Your task to perform on an android device: Open internet settings Image 0: 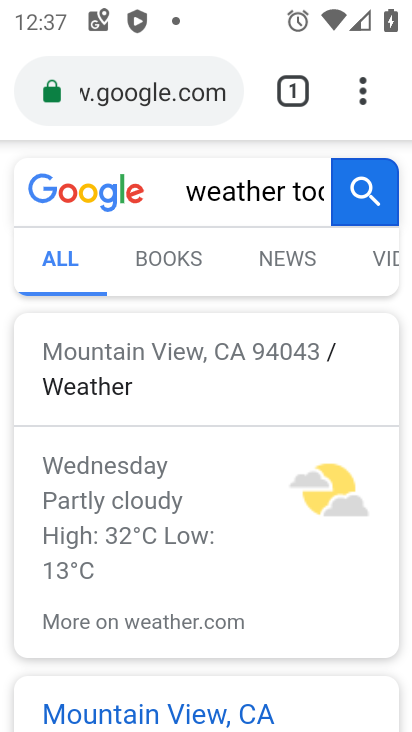
Step 0: press home button
Your task to perform on an android device: Open internet settings Image 1: 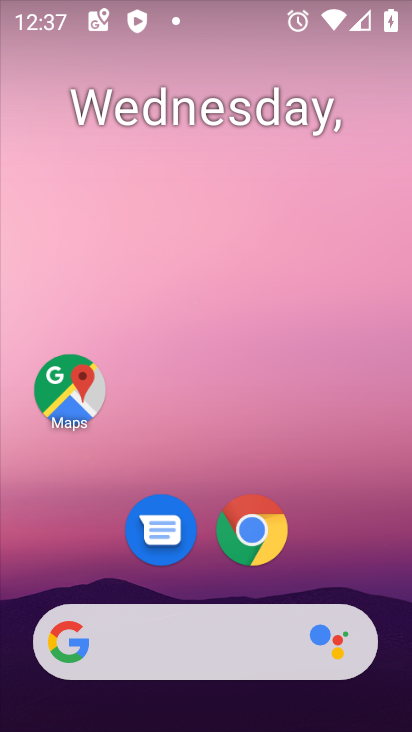
Step 1: drag from (189, 592) to (228, 176)
Your task to perform on an android device: Open internet settings Image 2: 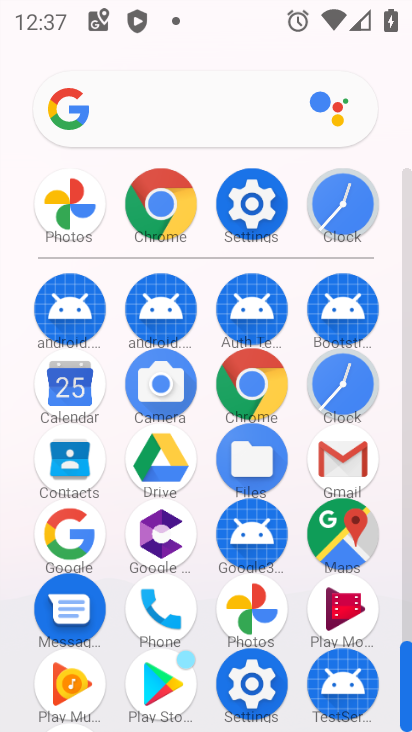
Step 2: click (252, 199)
Your task to perform on an android device: Open internet settings Image 3: 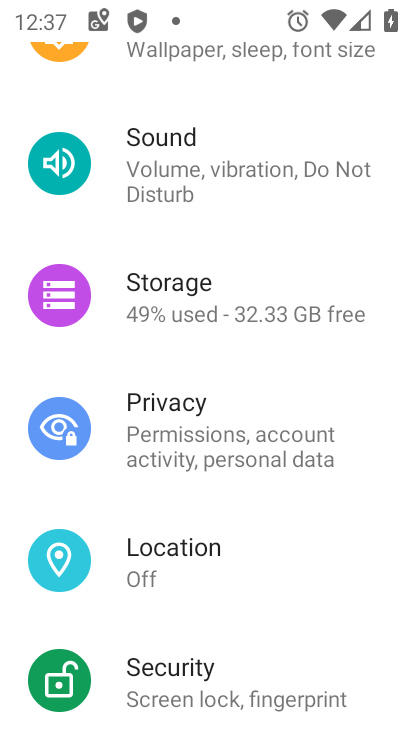
Step 3: drag from (289, 109) to (229, 722)
Your task to perform on an android device: Open internet settings Image 4: 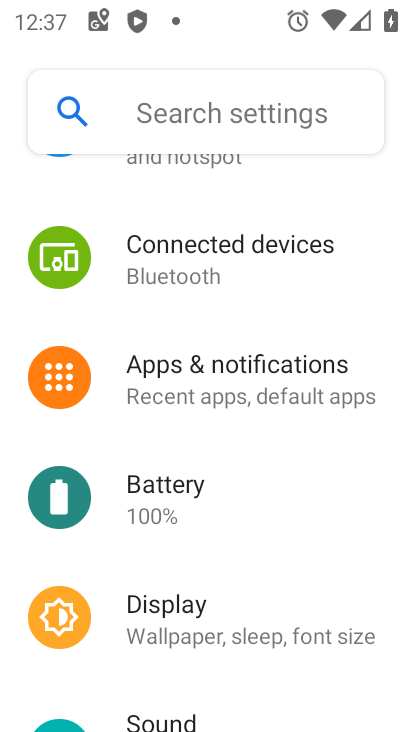
Step 4: drag from (247, 214) to (213, 649)
Your task to perform on an android device: Open internet settings Image 5: 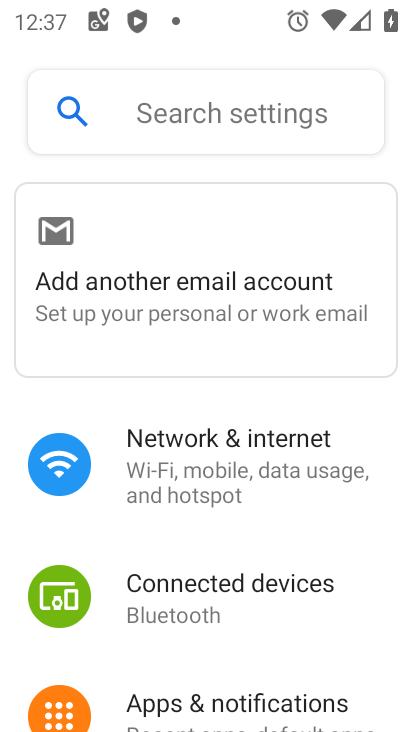
Step 5: click (214, 471)
Your task to perform on an android device: Open internet settings Image 6: 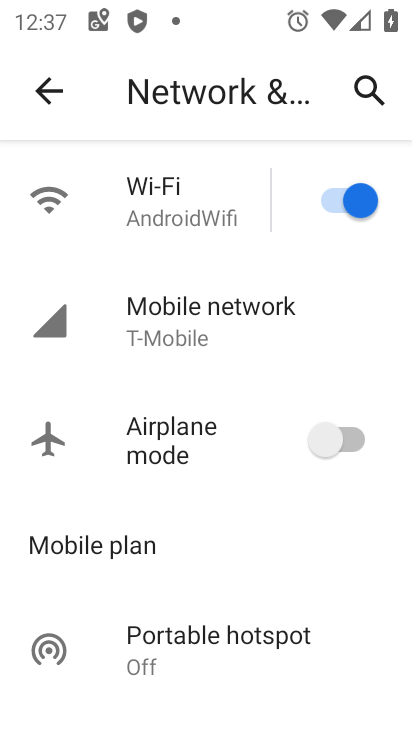
Step 6: task complete